Your task to perform on an android device: turn pop-ups off in chrome Image 0: 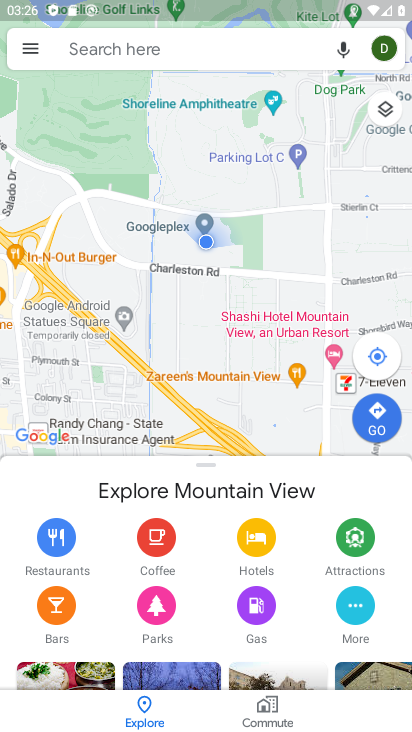
Step 0: press home button
Your task to perform on an android device: turn pop-ups off in chrome Image 1: 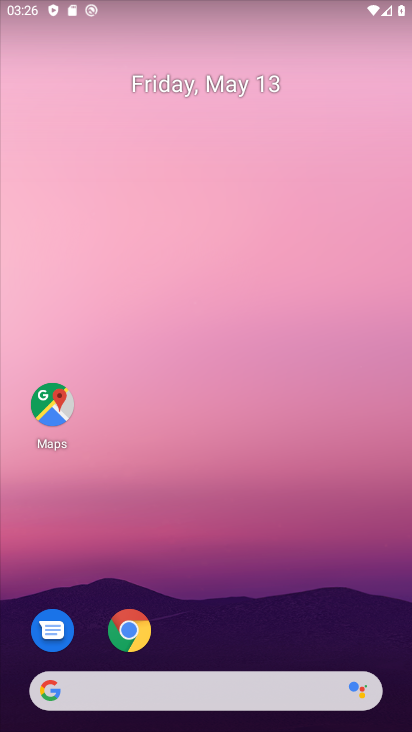
Step 1: click (134, 627)
Your task to perform on an android device: turn pop-ups off in chrome Image 2: 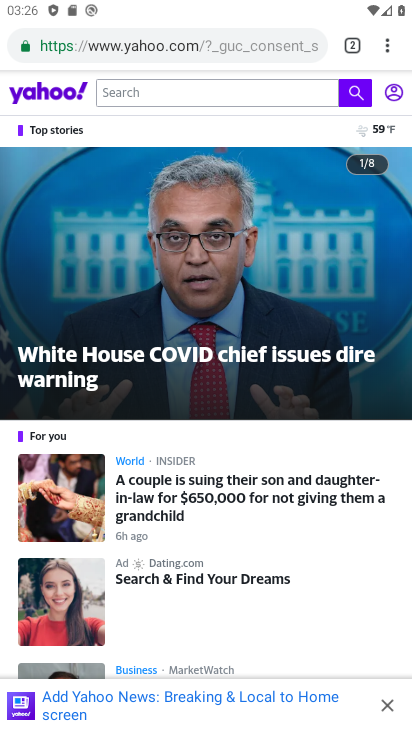
Step 2: click (389, 39)
Your task to perform on an android device: turn pop-ups off in chrome Image 3: 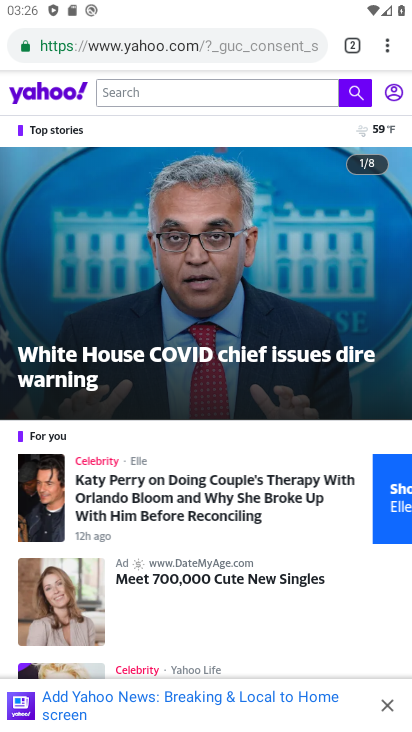
Step 3: click (386, 40)
Your task to perform on an android device: turn pop-ups off in chrome Image 4: 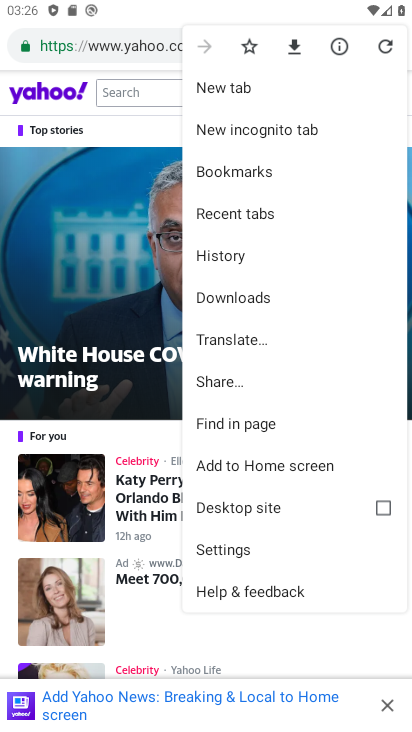
Step 4: click (241, 549)
Your task to perform on an android device: turn pop-ups off in chrome Image 5: 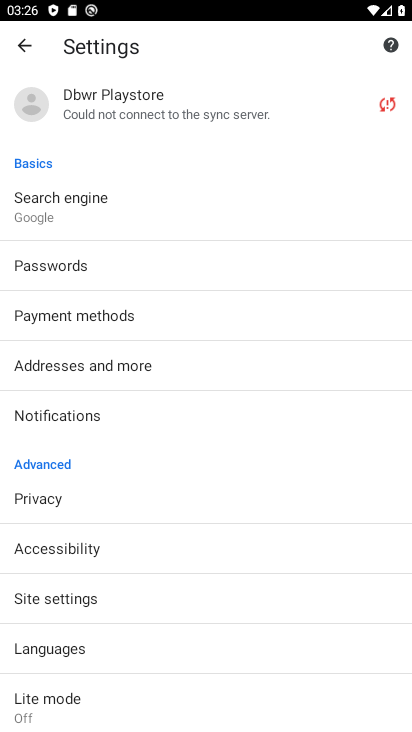
Step 5: click (79, 608)
Your task to perform on an android device: turn pop-ups off in chrome Image 6: 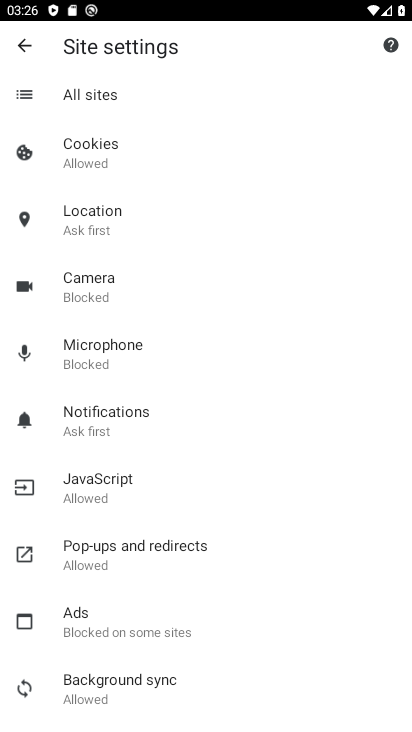
Step 6: click (124, 547)
Your task to perform on an android device: turn pop-ups off in chrome Image 7: 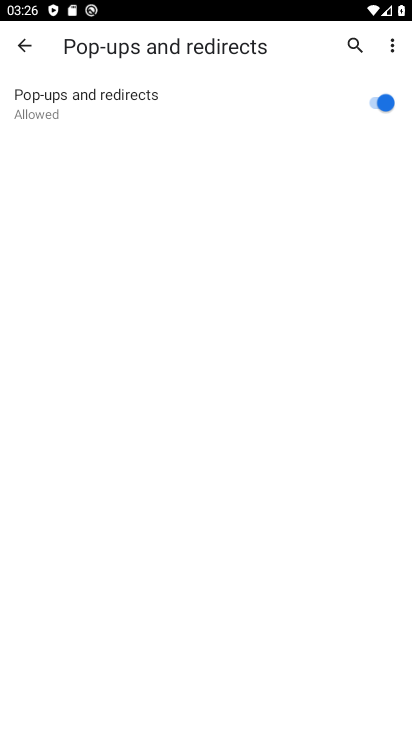
Step 7: click (371, 101)
Your task to perform on an android device: turn pop-ups off in chrome Image 8: 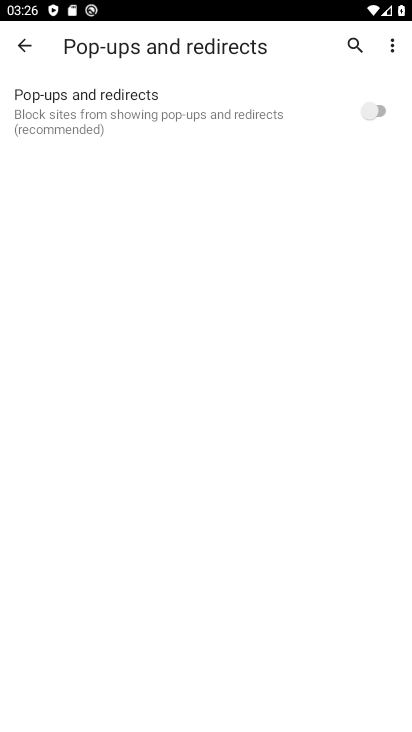
Step 8: task complete